Your task to perform on an android device: Go to Android settings Image 0: 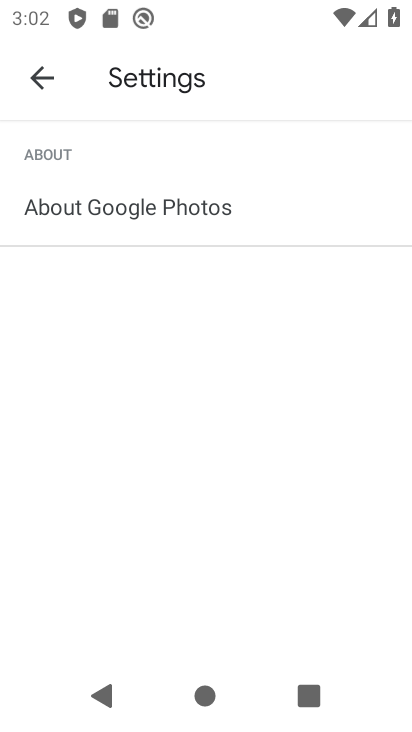
Step 0: press home button
Your task to perform on an android device: Go to Android settings Image 1: 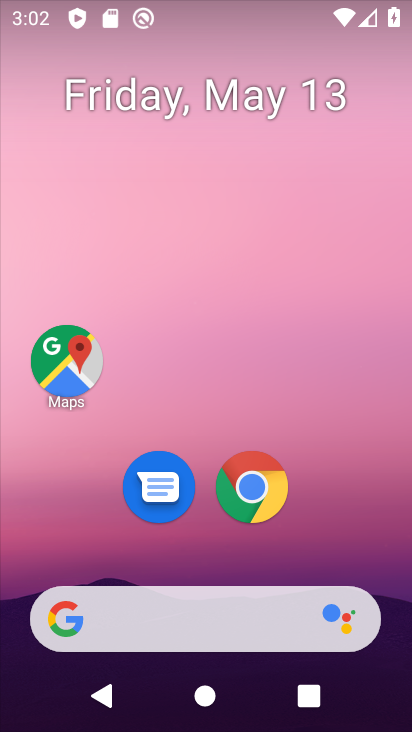
Step 1: drag from (353, 506) to (363, 30)
Your task to perform on an android device: Go to Android settings Image 2: 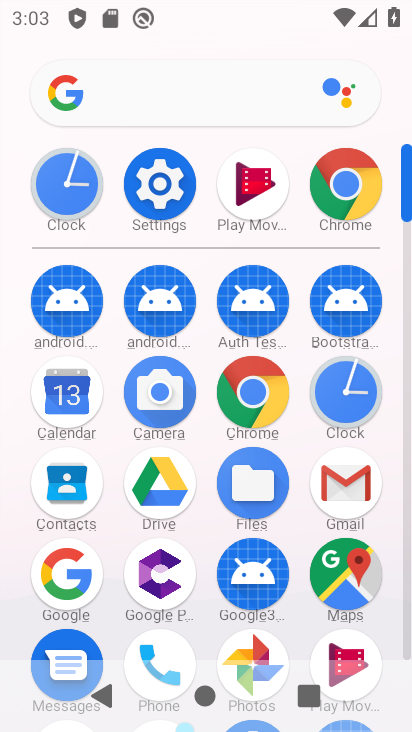
Step 2: click (162, 171)
Your task to perform on an android device: Go to Android settings Image 3: 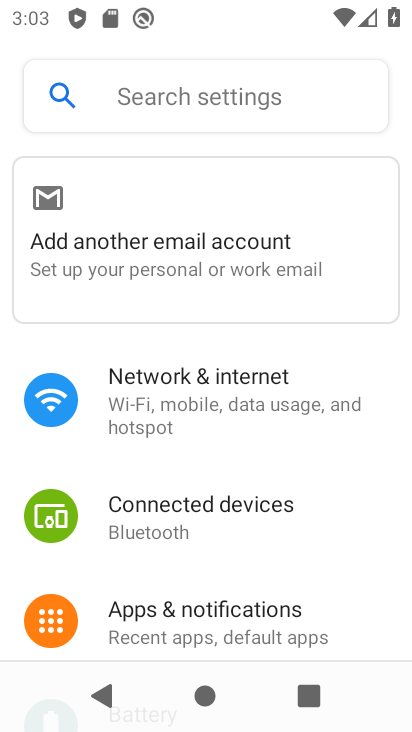
Step 3: drag from (188, 556) to (256, 143)
Your task to perform on an android device: Go to Android settings Image 4: 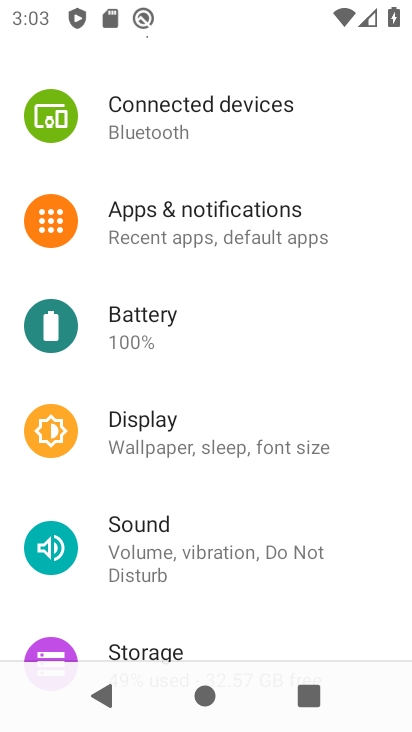
Step 4: drag from (211, 528) to (154, 112)
Your task to perform on an android device: Go to Android settings Image 5: 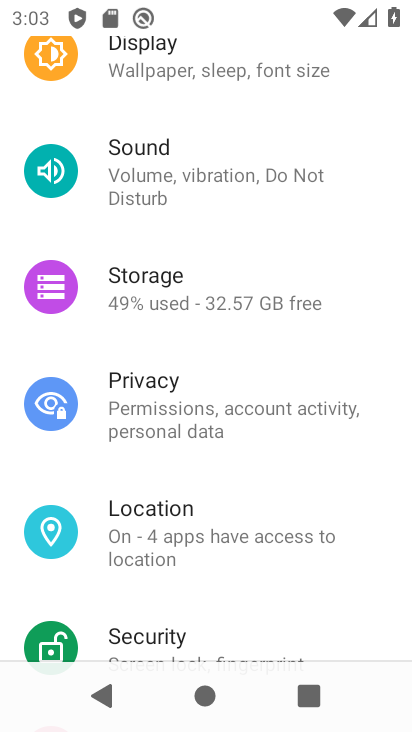
Step 5: drag from (201, 526) to (189, 170)
Your task to perform on an android device: Go to Android settings Image 6: 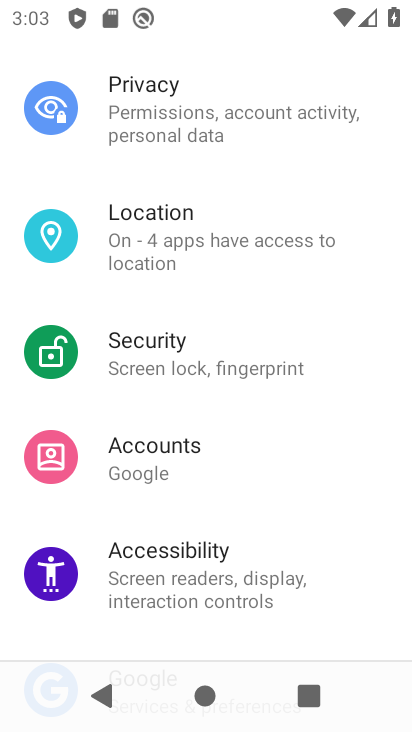
Step 6: drag from (225, 528) to (264, 75)
Your task to perform on an android device: Go to Android settings Image 7: 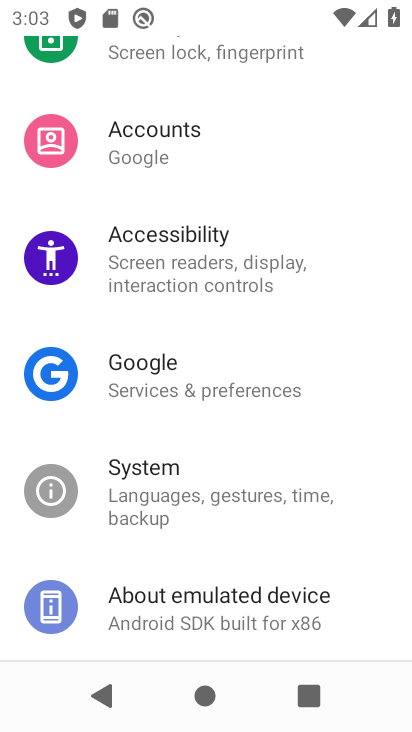
Step 7: drag from (256, 590) to (178, 151)
Your task to perform on an android device: Go to Android settings Image 8: 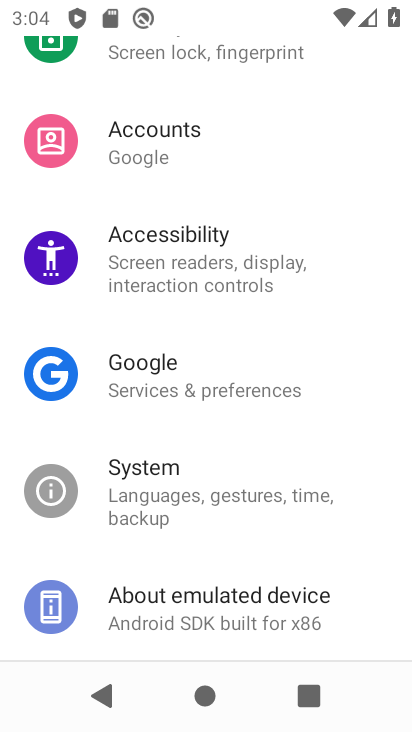
Step 8: drag from (192, 554) to (144, 193)
Your task to perform on an android device: Go to Android settings Image 9: 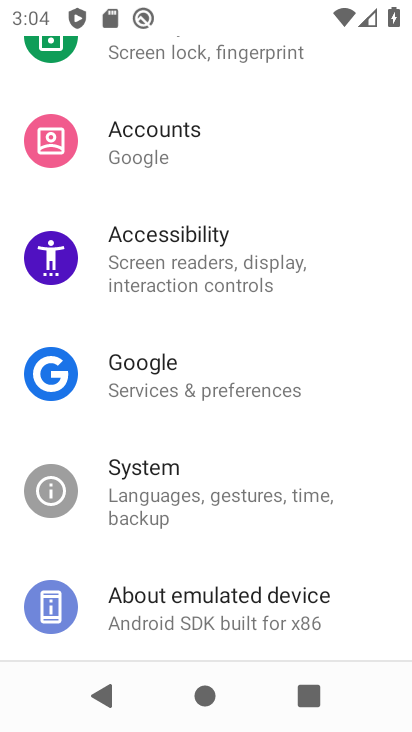
Step 9: click (225, 605)
Your task to perform on an android device: Go to Android settings Image 10: 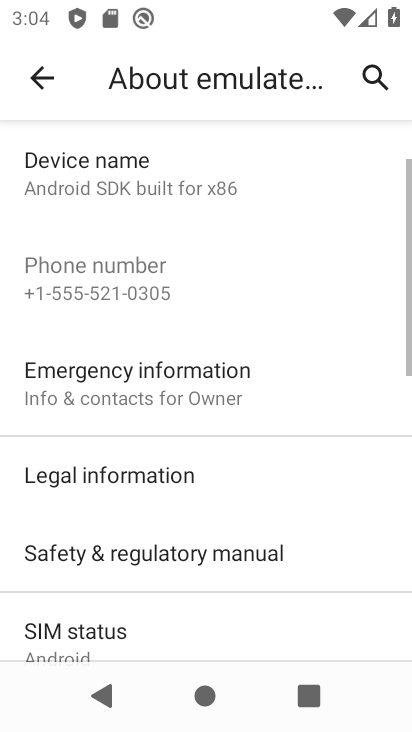
Step 10: drag from (158, 580) to (204, 188)
Your task to perform on an android device: Go to Android settings Image 11: 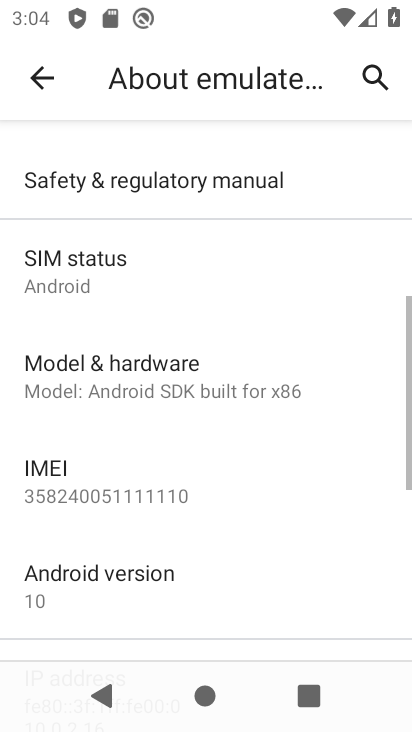
Step 11: drag from (194, 515) to (214, 251)
Your task to perform on an android device: Go to Android settings Image 12: 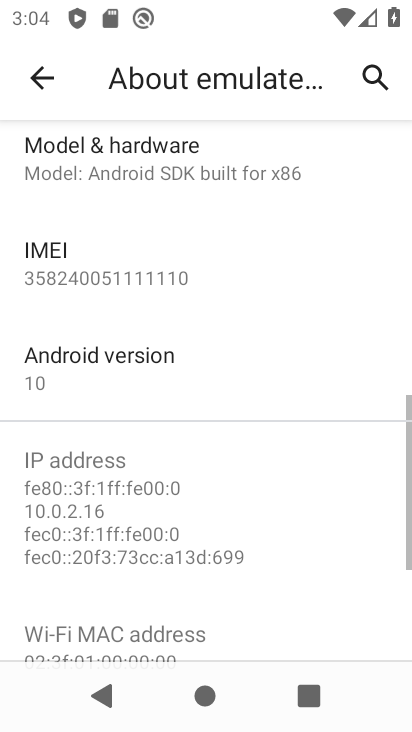
Step 12: click (68, 381)
Your task to perform on an android device: Go to Android settings Image 13: 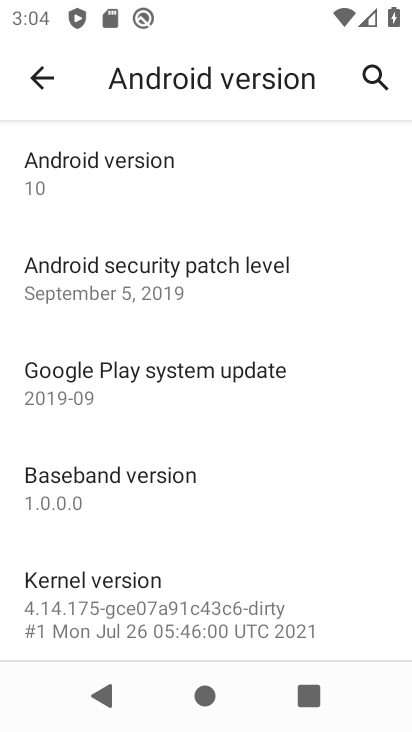
Step 13: task complete